Your task to perform on an android device: set default search engine in the chrome app Image 0: 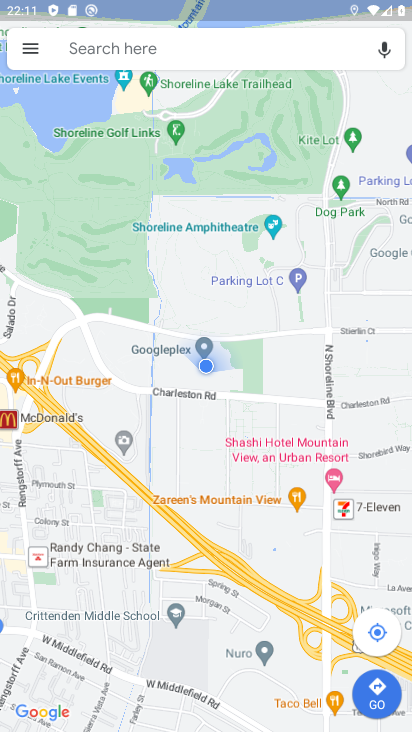
Step 0: press home button
Your task to perform on an android device: set default search engine in the chrome app Image 1: 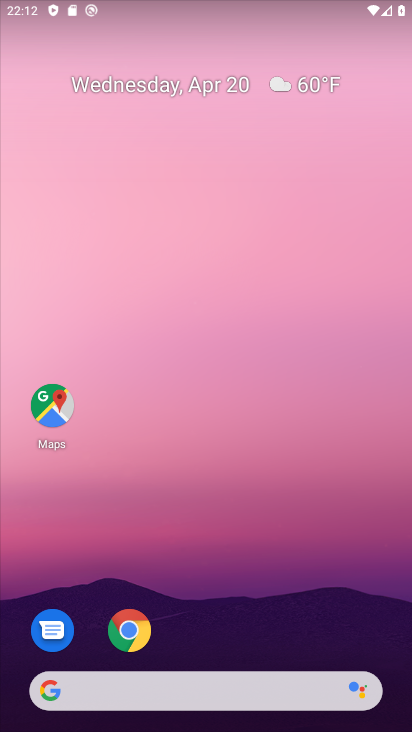
Step 1: click (129, 636)
Your task to perform on an android device: set default search engine in the chrome app Image 2: 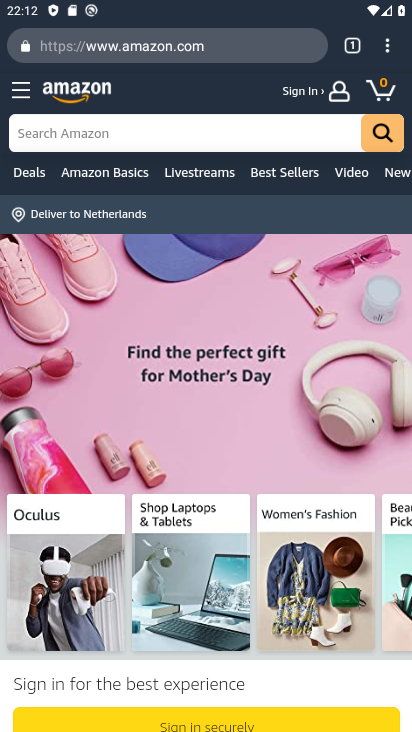
Step 2: click (391, 46)
Your task to perform on an android device: set default search engine in the chrome app Image 3: 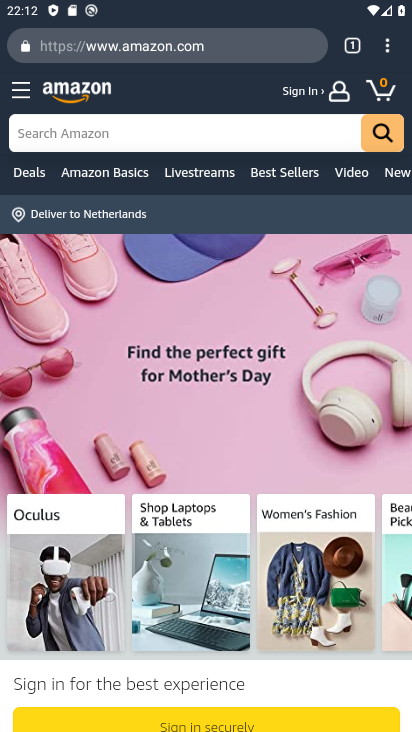
Step 3: click (392, 48)
Your task to perform on an android device: set default search engine in the chrome app Image 4: 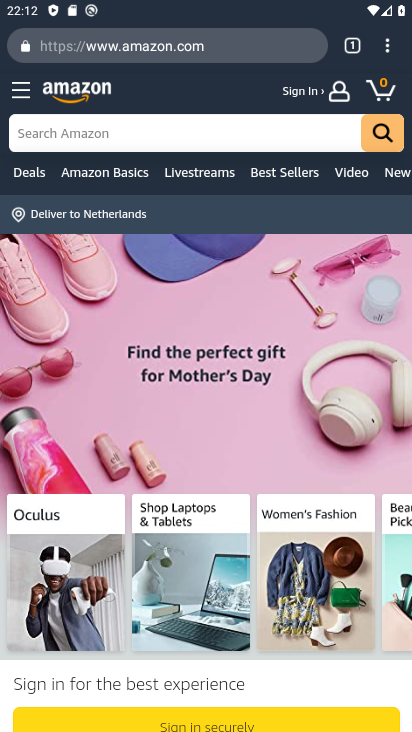
Step 4: click (388, 47)
Your task to perform on an android device: set default search engine in the chrome app Image 5: 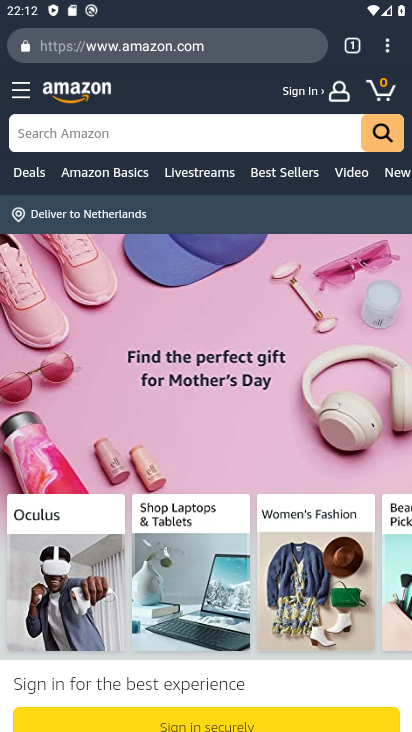
Step 5: click (384, 55)
Your task to perform on an android device: set default search engine in the chrome app Image 6: 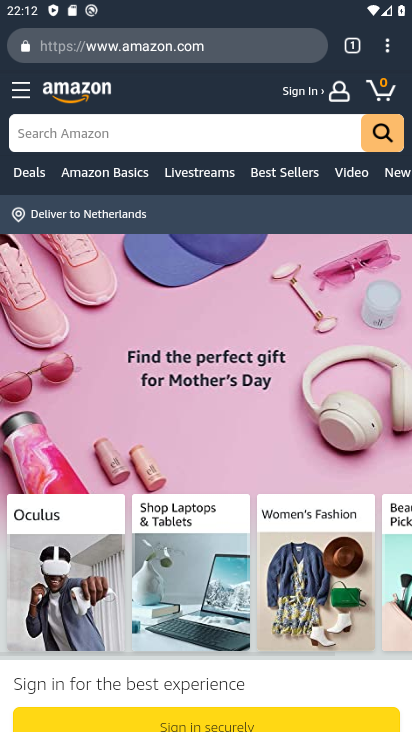
Step 6: click (384, 55)
Your task to perform on an android device: set default search engine in the chrome app Image 7: 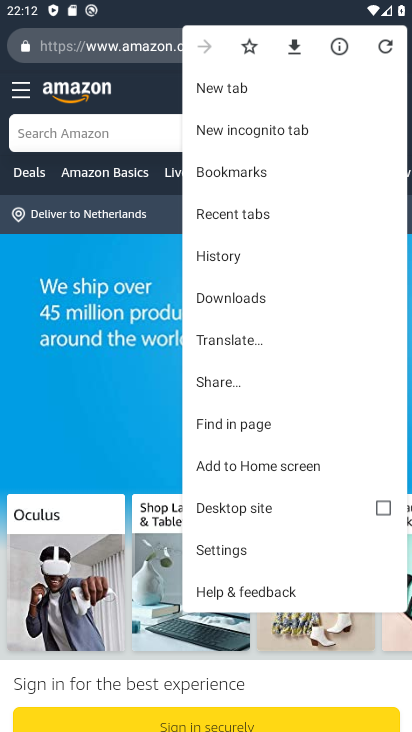
Step 7: drag from (248, 515) to (271, 279)
Your task to perform on an android device: set default search engine in the chrome app Image 8: 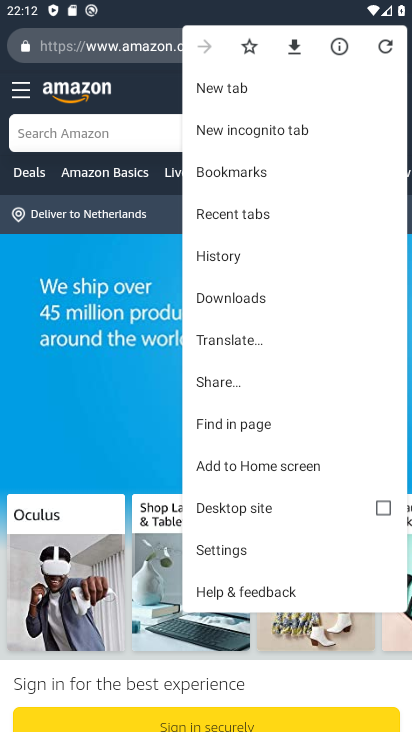
Step 8: click (246, 550)
Your task to perform on an android device: set default search engine in the chrome app Image 9: 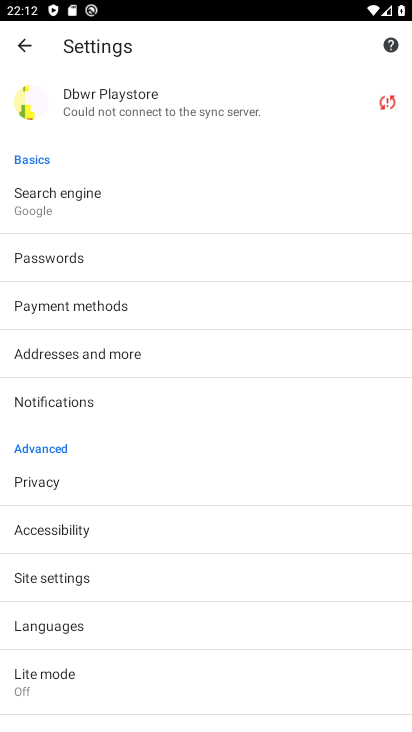
Step 9: click (127, 193)
Your task to perform on an android device: set default search engine in the chrome app Image 10: 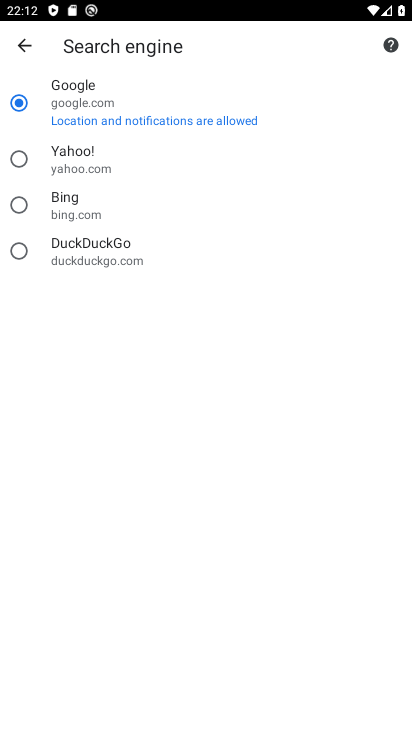
Step 10: task complete